Your task to perform on an android device: Open maps Image 0: 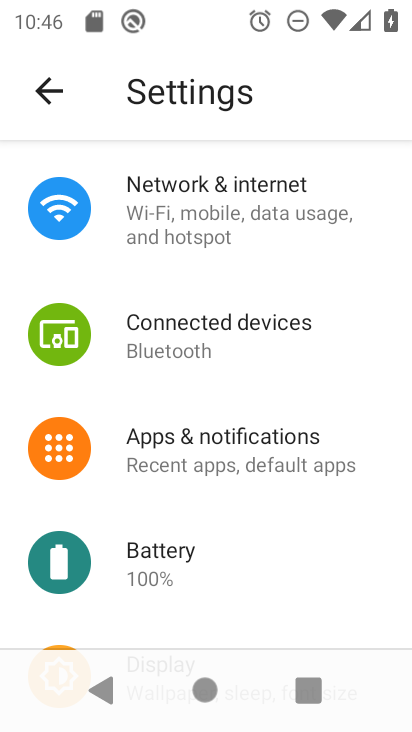
Step 0: press home button
Your task to perform on an android device: Open maps Image 1: 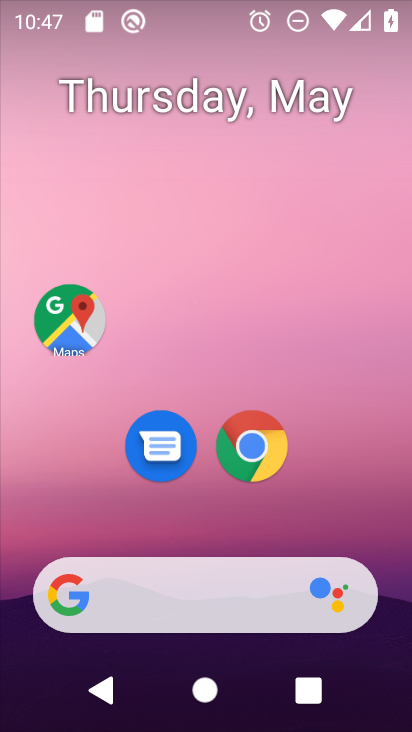
Step 1: drag from (248, 635) to (207, 194)
Your task to perform on an android device: Open maps Image 2: 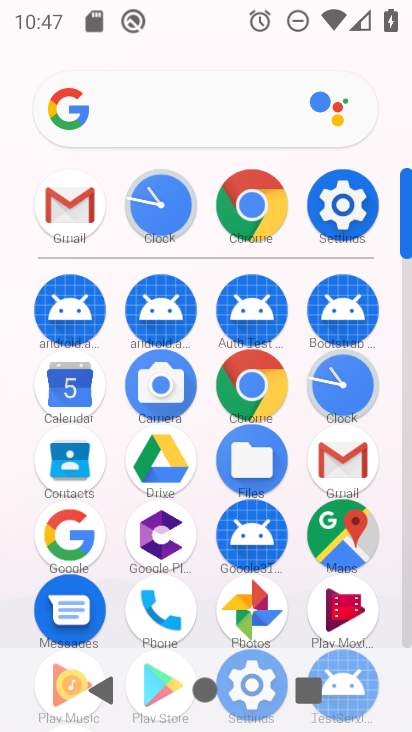
Step 2: click (344, 531)
Your task to perform on an android device: Open maps Image 3: 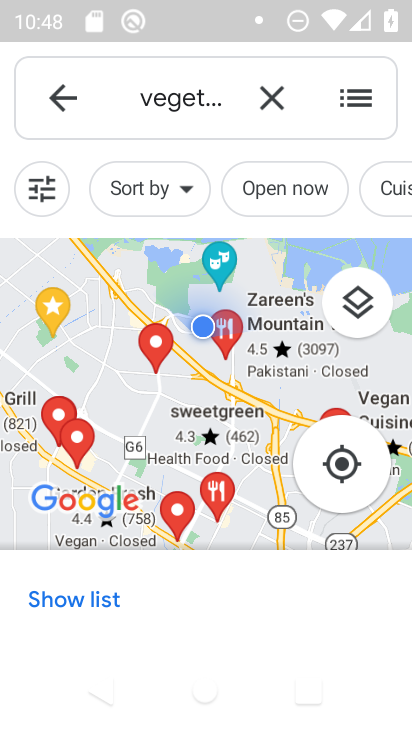
Step 3: task complete